Your task to perform on an android device: open a bookmark in the chrome app Image 0: 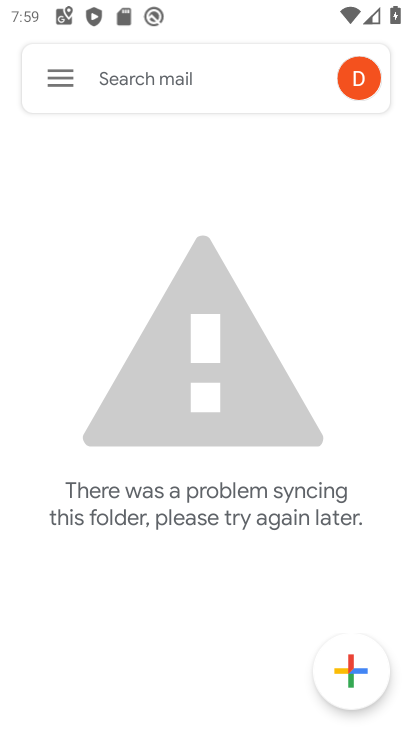
Step 0: press home button
Your task to perform on an android device: open a bookmark in the chrome app Image 1: 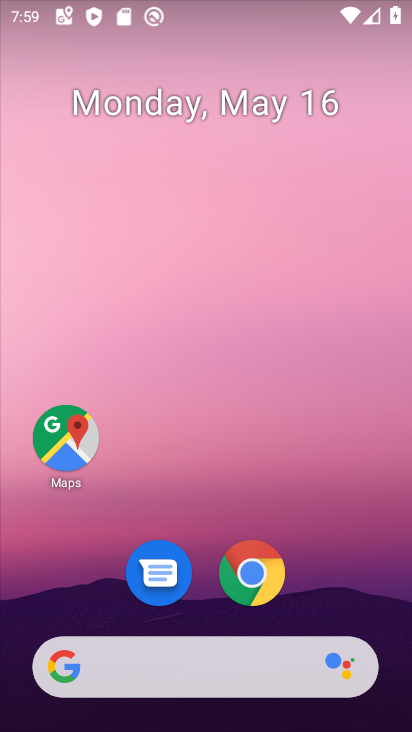
Step 1: click (261, 588)
Your task to perform on an android device: open a bookmark in the chrome app Image 2: 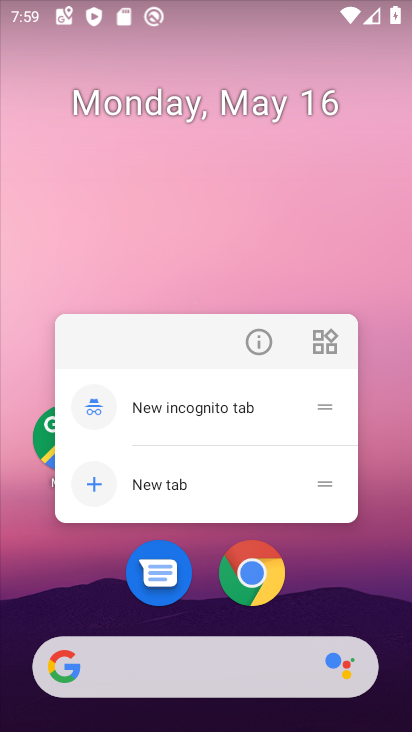
Step 2: click (261, 588)
Your task to perform on an android device: open a bookmark in the chrome app Image 3: 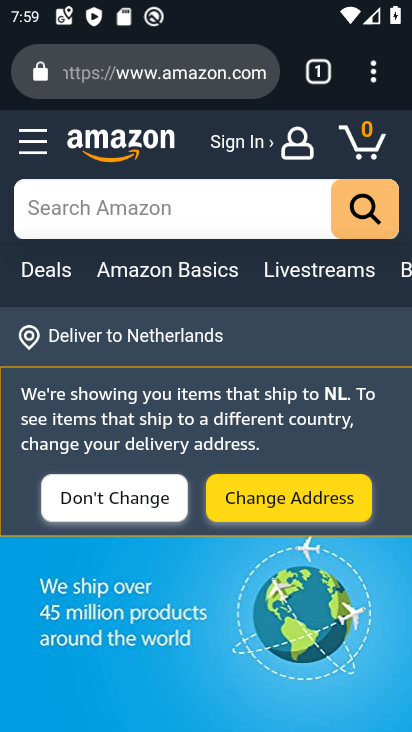
Step 3: click (384, 80)
Your task to perform on an android device: open a bookmark in the chrome app Image 4: 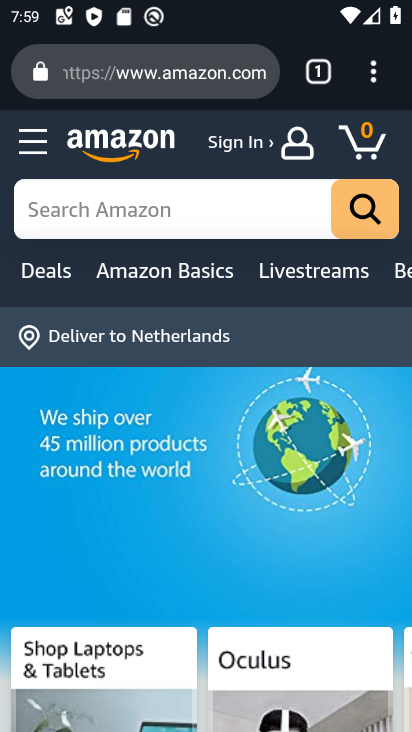
Step 4: task complete